Your task to perform on an android device: see creations saved in the google photos Image 0: 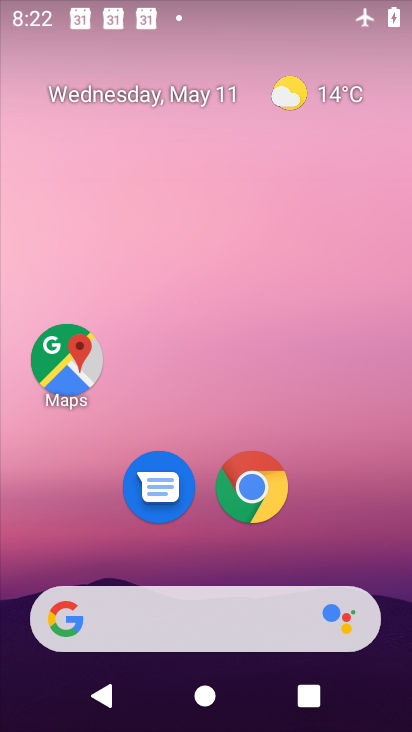
Step 0: drag from (235, 714) to (229, 216)
Your task to perform on an android device: see creations saved in the google photos Image 1: 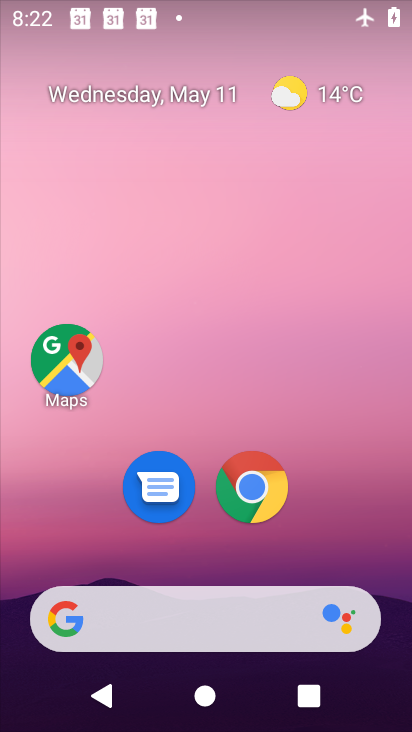
Step 1: drag from (226, 717) to (199, 154)
Your task to perform on an android device: see creations saved in the google photos Image 2: 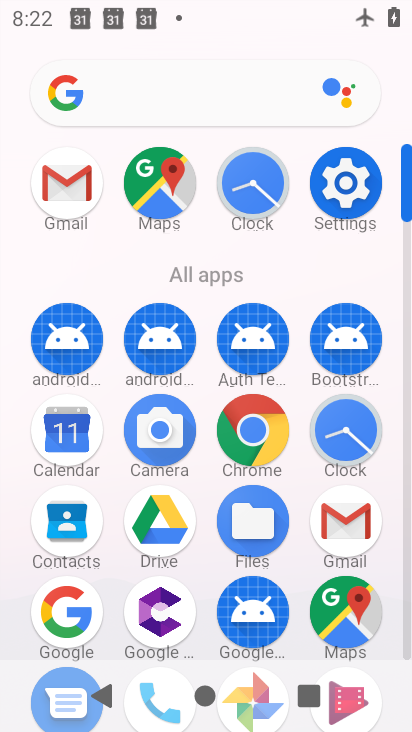
Step 2: drag from (293, 647) to (295, 270)
Your task to perform on an android device: see creations saved in the google photos Image 3: 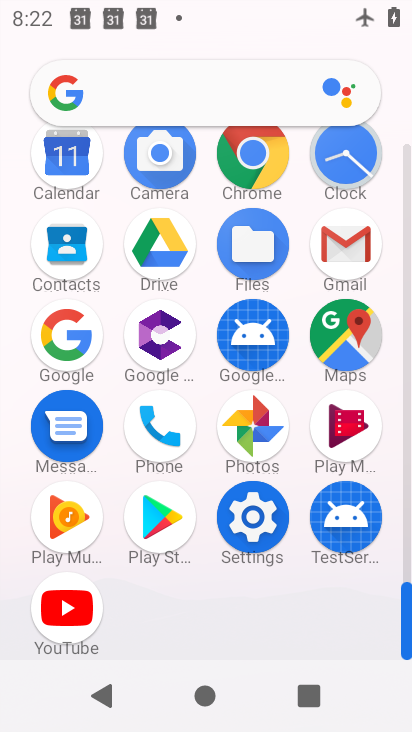
Step 3: click (255, 426)
Your task to perform on an android device: see creations saved in the google photos Image 4: 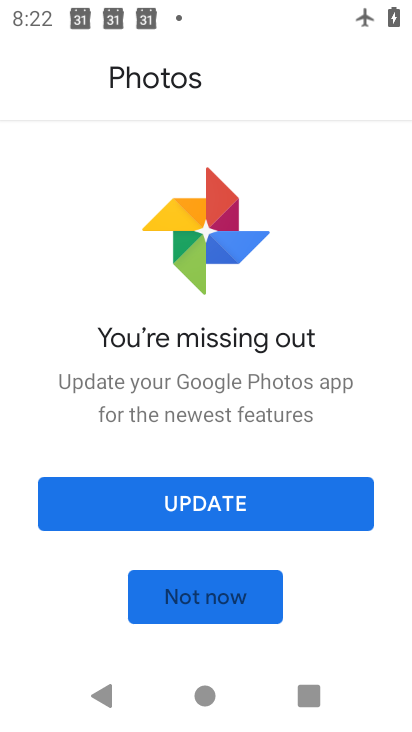
Step 4: task complete